Your task to perform on an android device: set the timer Image 0: 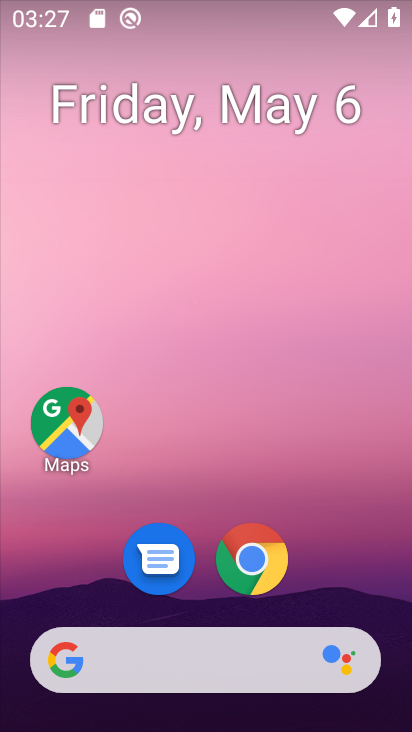
Step 0: drag from (341, 621) to (312, 4)
Your task to perform on an android device: set the timer Image 1: 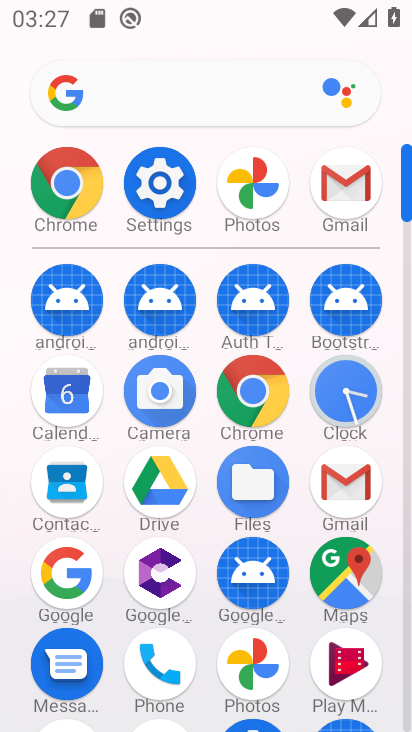
Step 1: click (351, 395)
Your task to perform on an android device: set the timer Image 2: 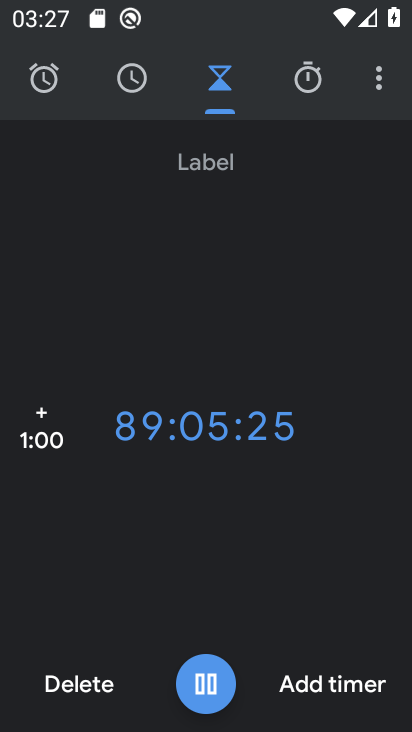
Step 2: click (68, 683)
Your task to perform on an android device: set the timer Image 3: 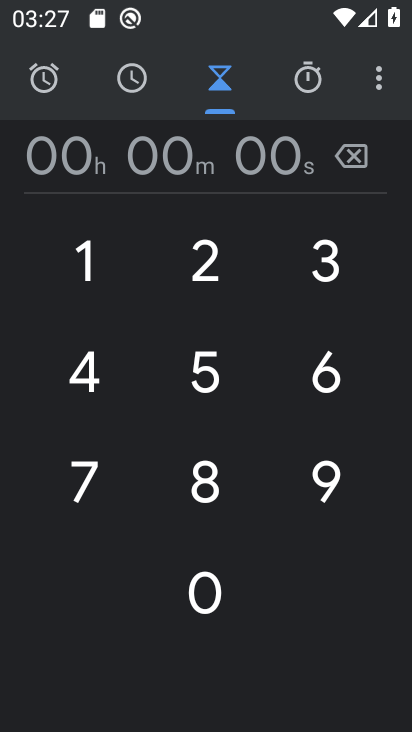
Step 3: click (217, 372)
Your task to perform on an android device: set the timer Image 4: 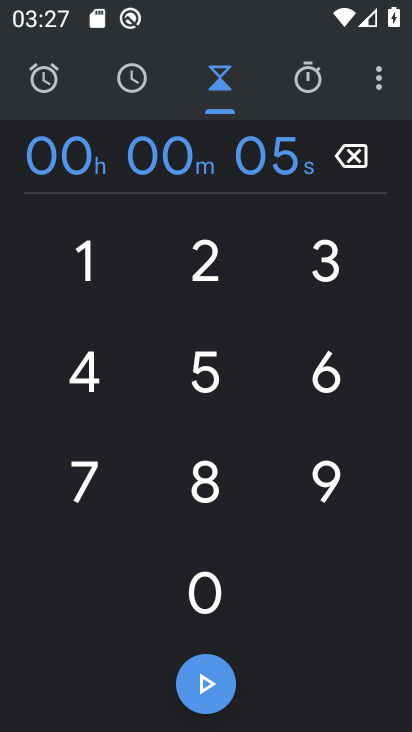
Step 4: click (323, 383)
Your task to perform on an android device: set the timer Image 5: 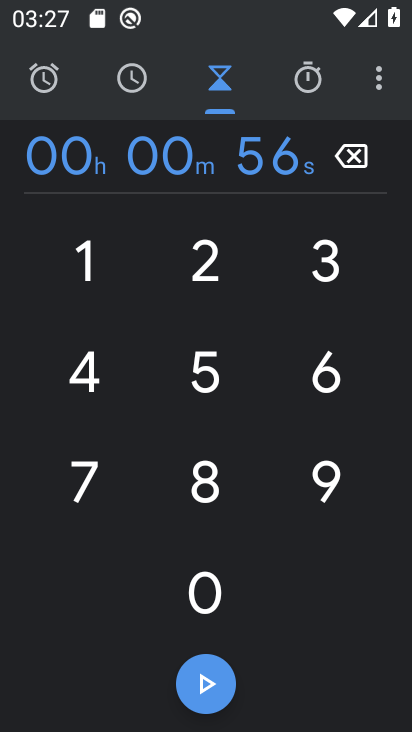
Step 5: click (235, 240)
Your task to perform on an android device: set the timer Image 6: 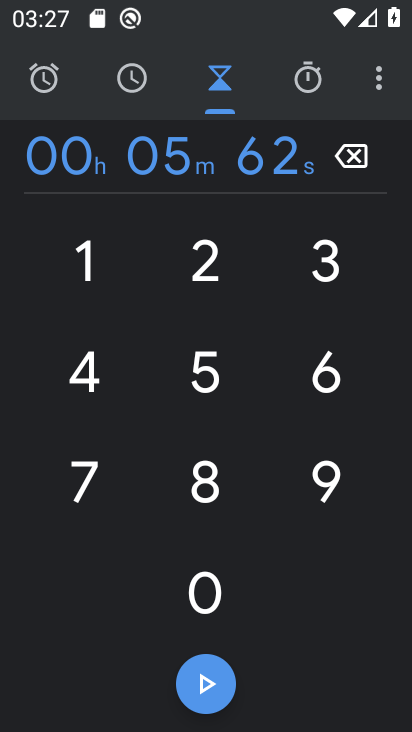
Step 6: click (319, 250)
Your task to perform on an android device: set the timer Image 7: 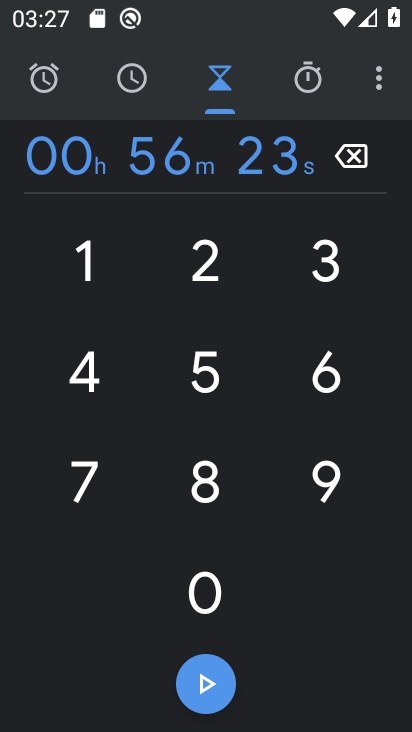
Step 7: click (81, 254)
Your task to perform on an android device: set the timer Image 8: 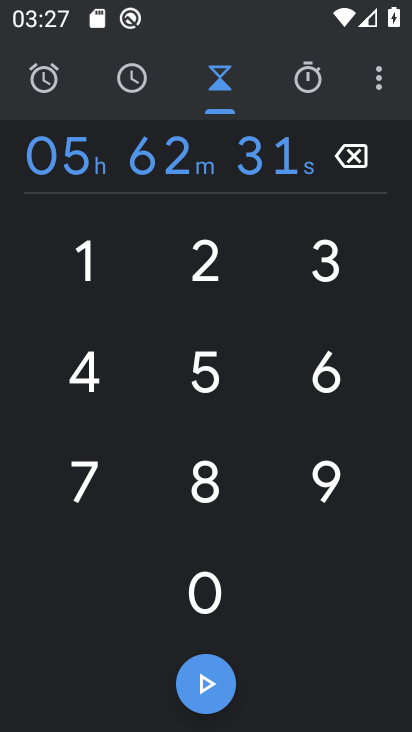
Step 8: click (206, 267)
Your task to perform on an android device: set the timer Image 9: 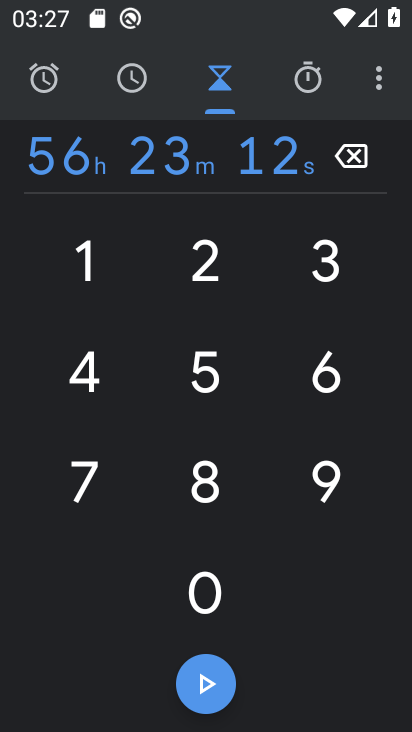
Step 9: click (202, 692)
Your task to perform on an android device: set the timer Image 10: 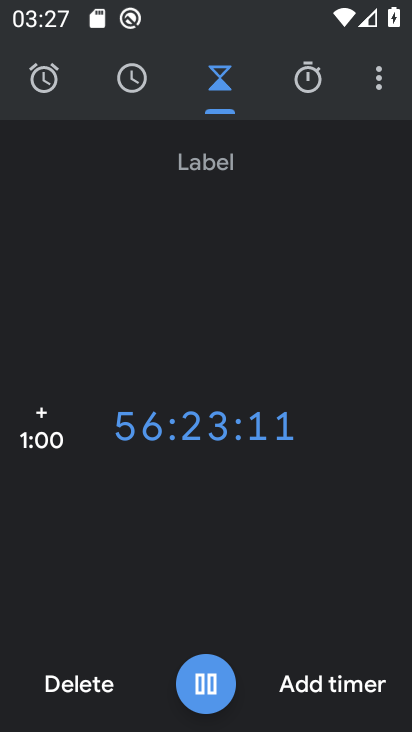
Step 10: task complete